Your task to perform on an android device: Open Wikipedia Image 0: 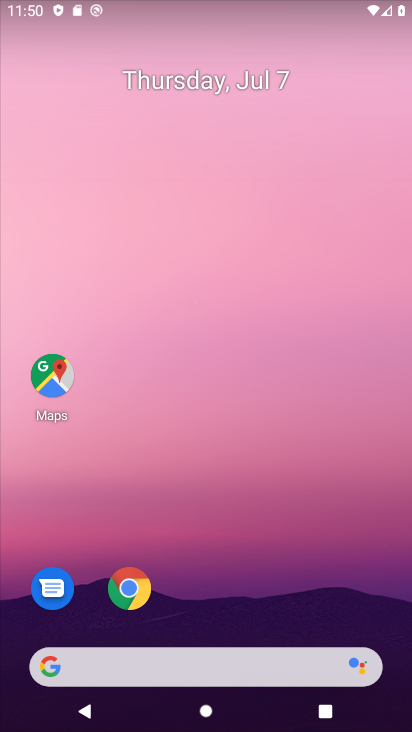
Step 0: drag from (204, 601) to (246, 65)
Your task to perform on an android device: Open Wikipedia Image 1: 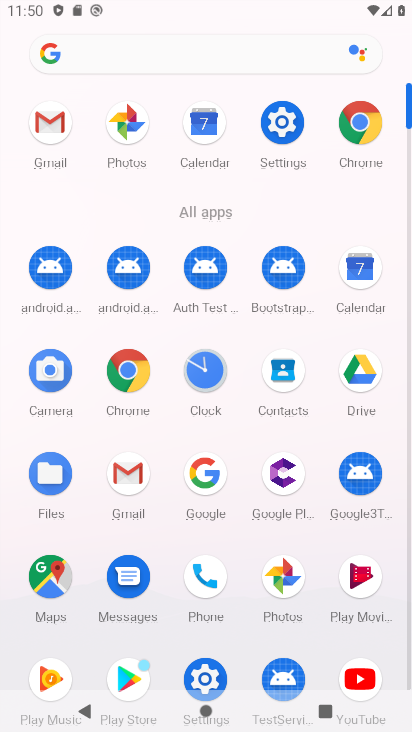
Step 1: click (358, 161)
Your task to perform on an android device: Open Wikipedia Image 2: 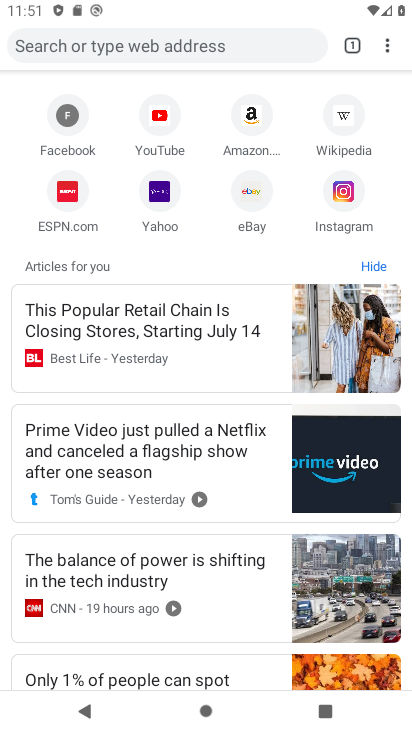
Step 2: press home button
Your task to perform on an android device: Open Wikipedia Image 3: 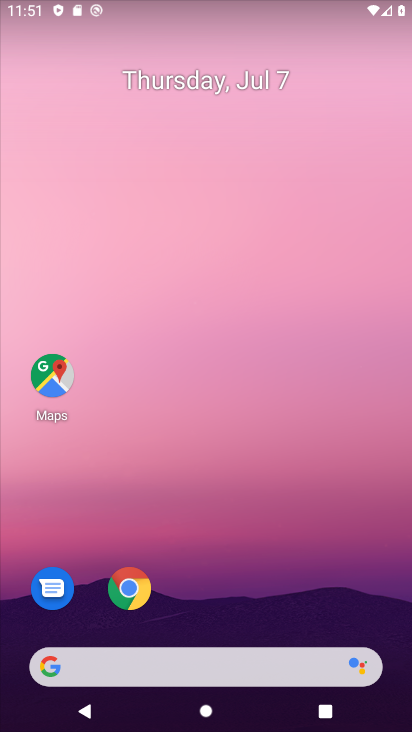
Step 3: drag from (191, 545) to (186, 110)
Your task to perform on an android device: Open Wikipedia Image 4: 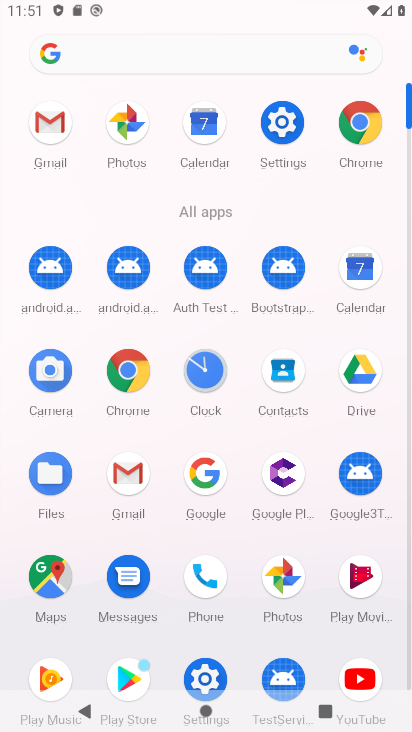
Step 4: click (362, 159)
Your task to perform on an android device: Open Wikipedia Image 5: 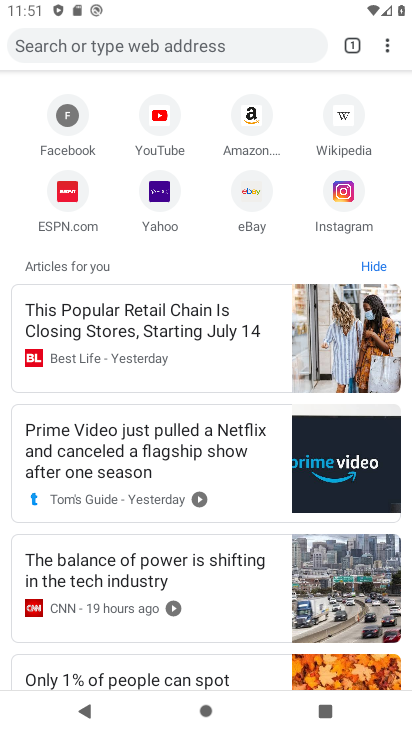
Step 5: click (348, 145)
Your task to perform on an android device: Open Wikipedia Image 6: 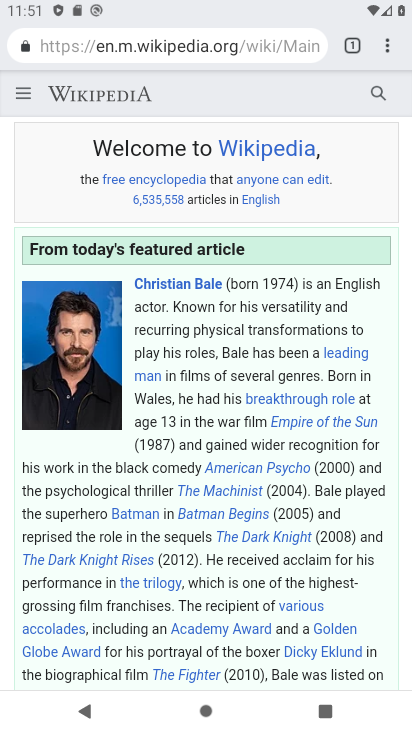
Step 6: task complete